Your task to perform on an android device: turn pop-ups off in chrome Image 0: 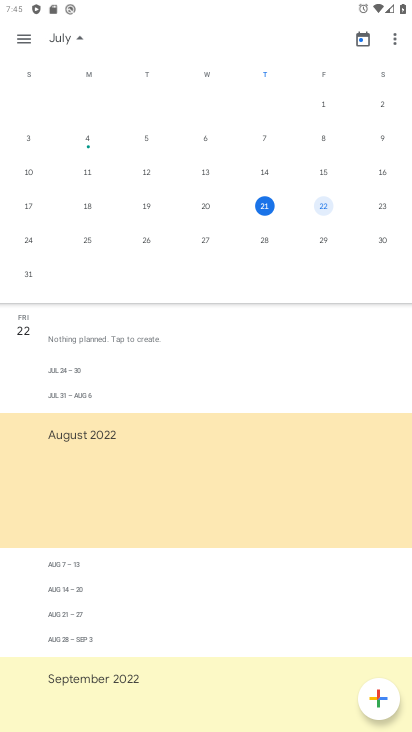
Step 0: press home button
Your task to perform on an android device: turn pop-ups off in chrome Image 1: 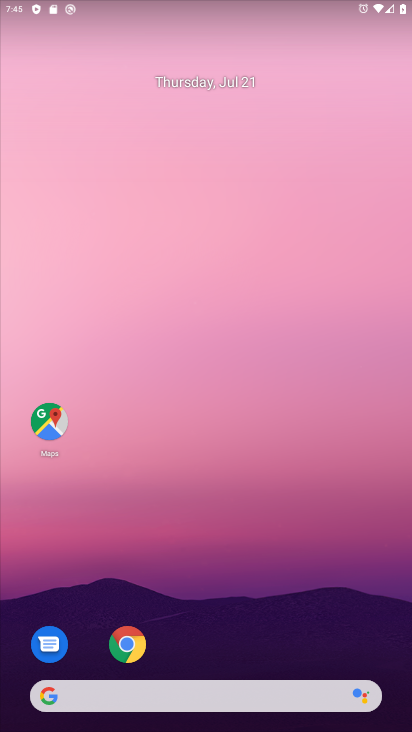
Step 1: drag from (336, 592) to (347, 111)
Your task to perform on an android device: turn pop-ups off in chrome Image 2: 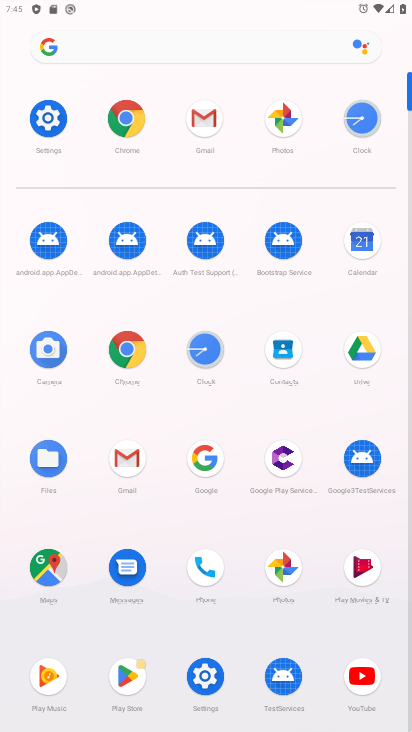
Step 2: click (129, 346)
Your task to perform on an android device: turn pop-ups off in chrome Image 3: 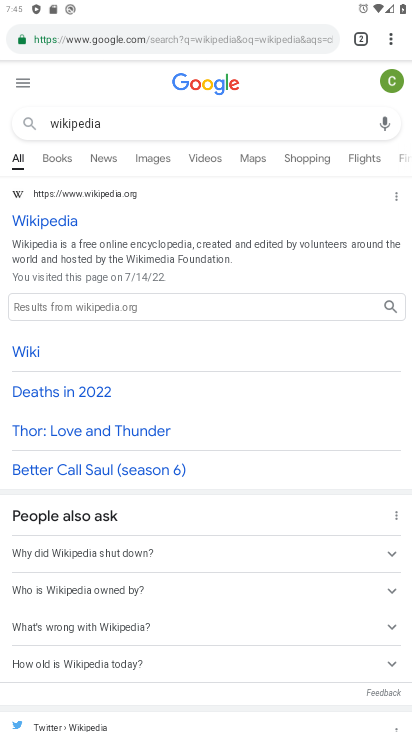
Step 3: click (393, 40)
Your task to perform on an android device: turn pop-ups off in chrome Image 4: 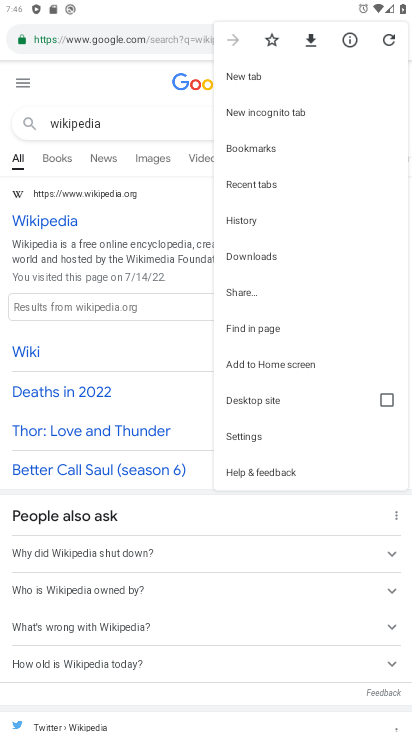
Step 4: click (252, 437)
Your task to perform on an android device: turn pop-ups off in chrome Image 5: 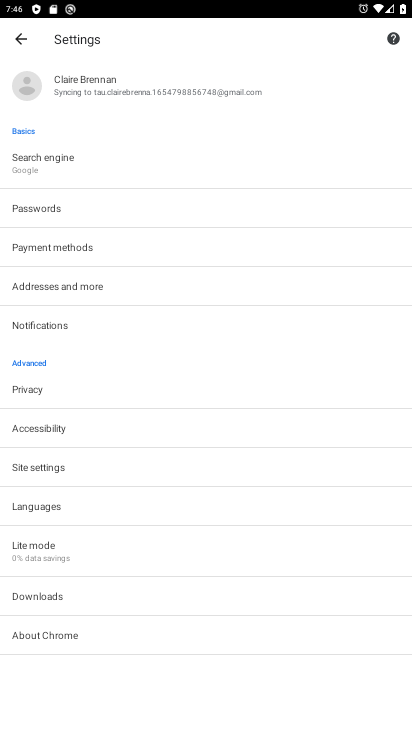
Step 5: click (218, 463)
Your task to perform on an android device: turn pop-ups off in chrome Image 6: 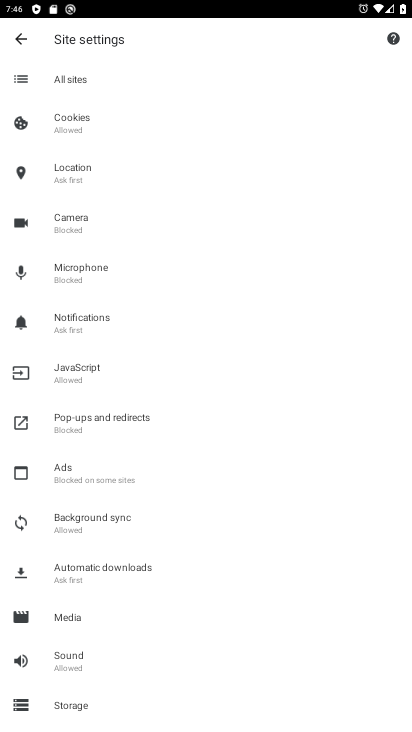
Step 6: click (154, 421)
Your task to perform on an android device: turn pop-ups off in chrome Image 7: 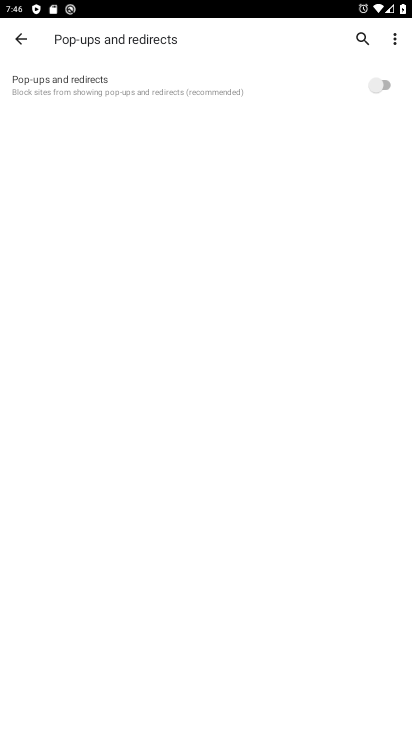
Step 7: task complete